Your task to perform on an android device: set the timer Image 0: 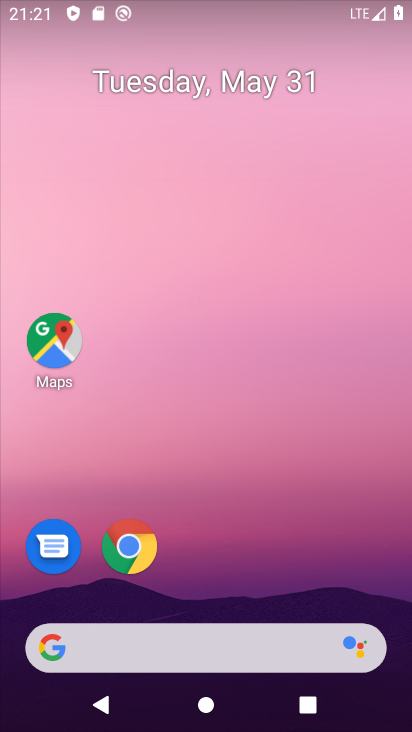
Step 0: drag from (395, 706) to (305, 86)
Your task to perform on an android device: set the timer Image 1: 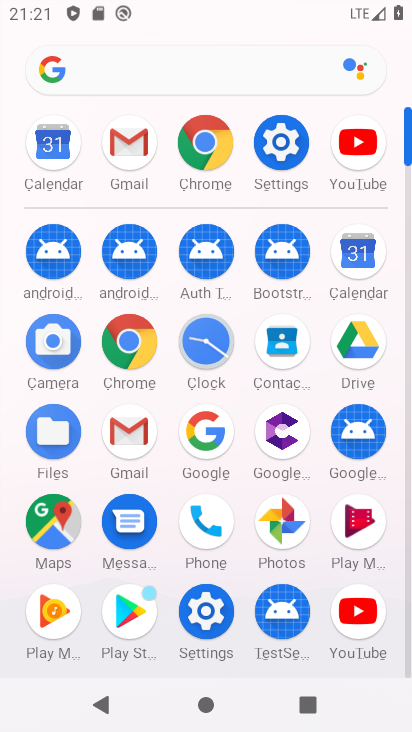
Step 1: click (210, 350)
Your task to perform on an android device: set the timer Image 2: 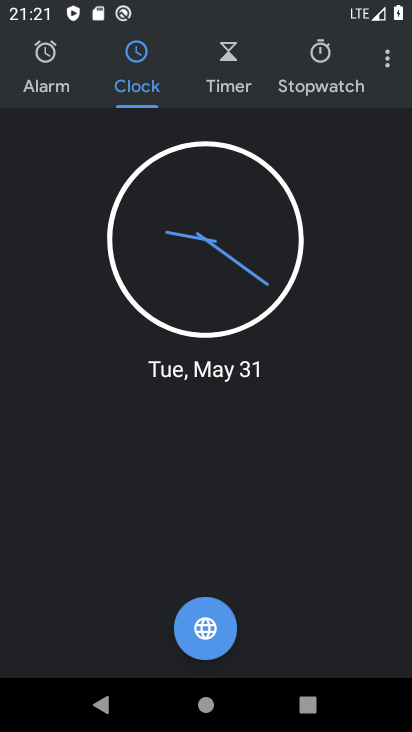
Step 2: click (228, 66)
Your task to perform on an android device: set the timer Image 3: 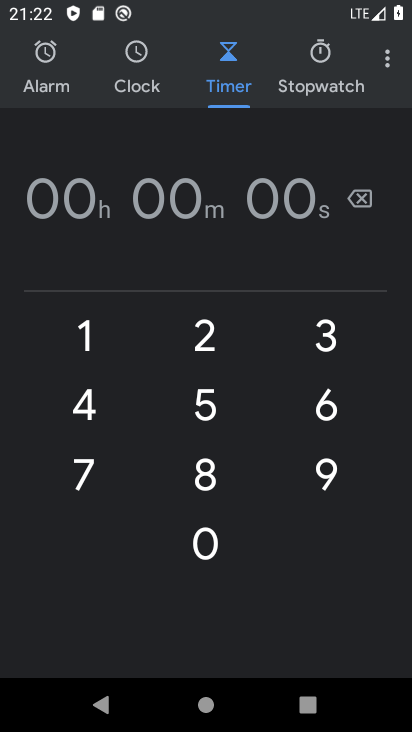
Step 3: click (209, 536)
Your task to perform on an android device: set the timer Image 4: 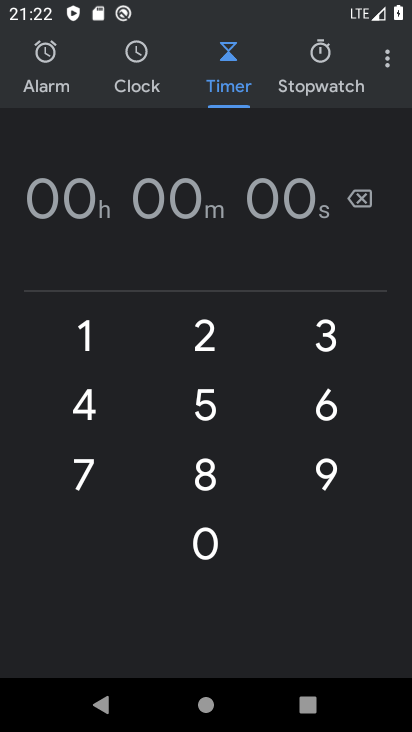
Step 4: click (209, 536)
Your task to perform on an android device: set the timer Image 5: 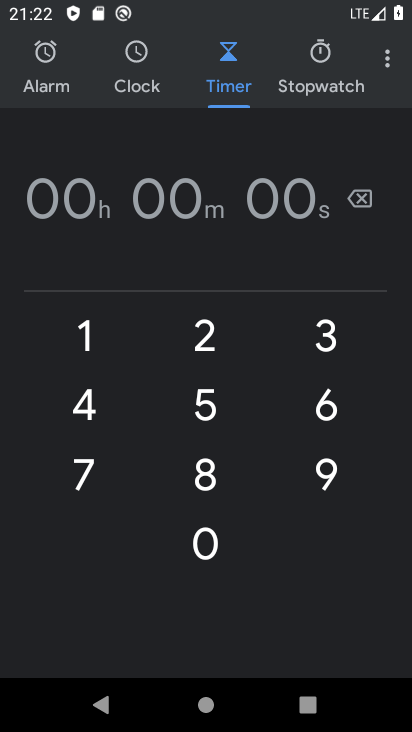
Step 5: click (87, 332)
Your task to perform on an android device: set the timer Image 6: 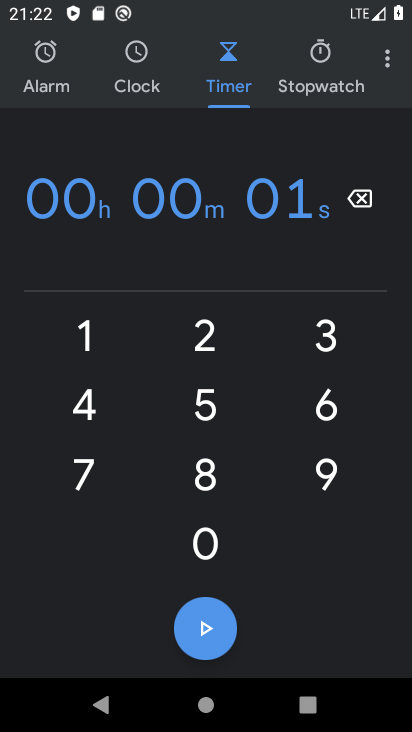
Step 6: click (209, 624)
Your task to perform on an android device: set the timer Image 7: 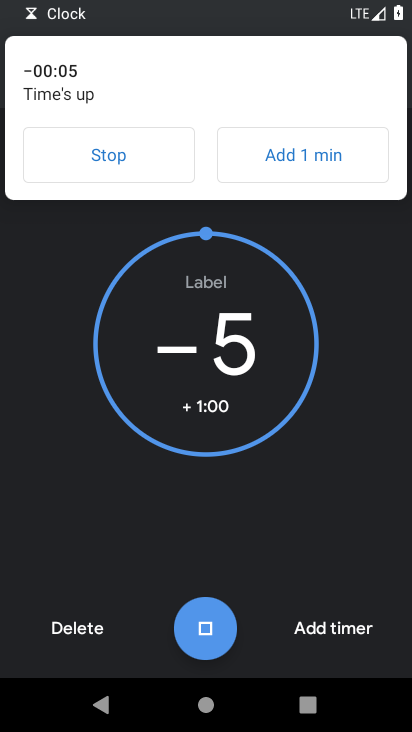
Step 7: task complete